Your task to perform on an android device: turn on improve location accuracy Image 0: 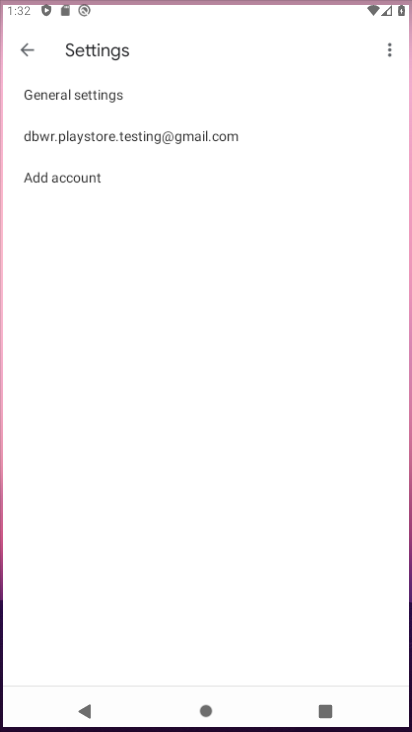
Step 0: drag from (255, 623) to (200, 123)
Your task to perform on an android device: turn on improve location accuracy Image 1: 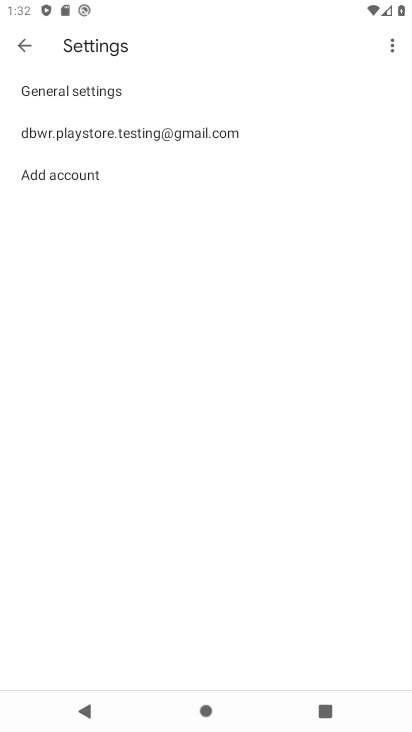
Step 1: press home button
Your task to perform on an android device: turn on improve location accuracy Image 2: 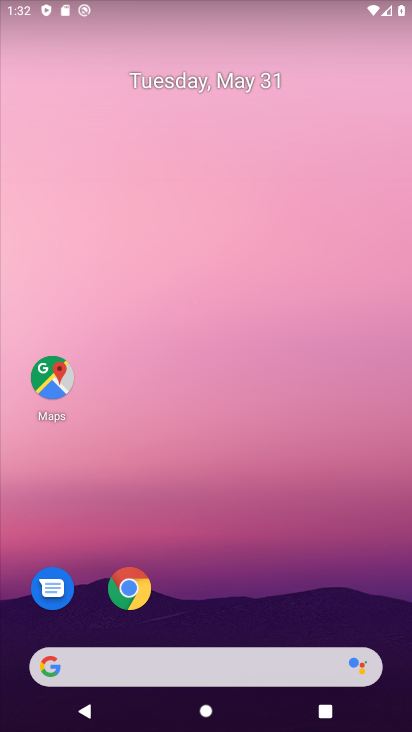
Step 2: drag from (239, 624) to (238, 46)
Your task to perform on an android device: turn on improve location accuracy Image 3: 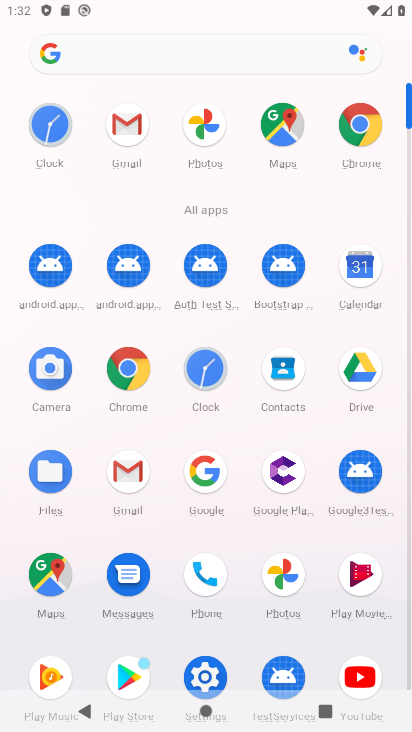
Step 3: click (219, 672)
Your task to perform on an android device: turn on improve location accuracy Image 4: 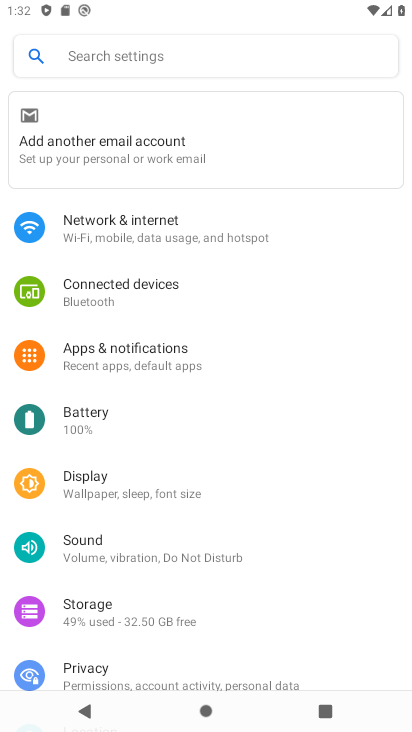
Step 4: drag from (178, 654) to (185, 143)
Your task to perform on an android device: turn on improve location accuracy Image 5: 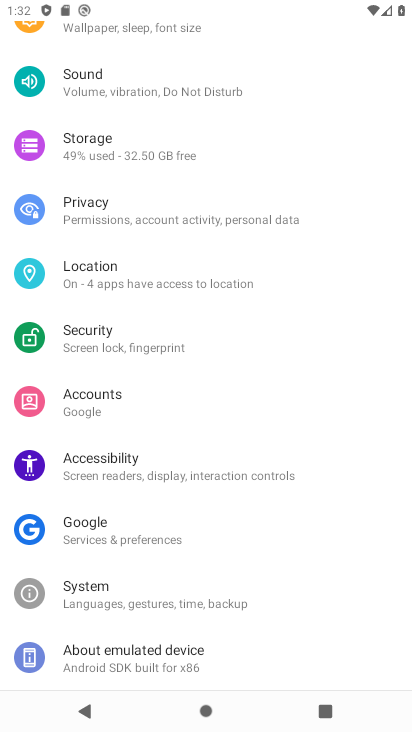
Step 5: click (141, 290)
Your task to perform on an android device: turn on improve location accuracy Image 6: 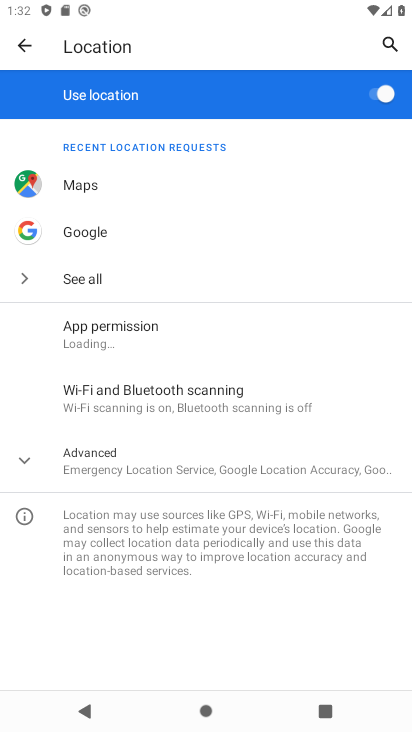
Step 6: click (220, 466)
Your task to perform on an android device: turn on improve location accuracy Image 7: 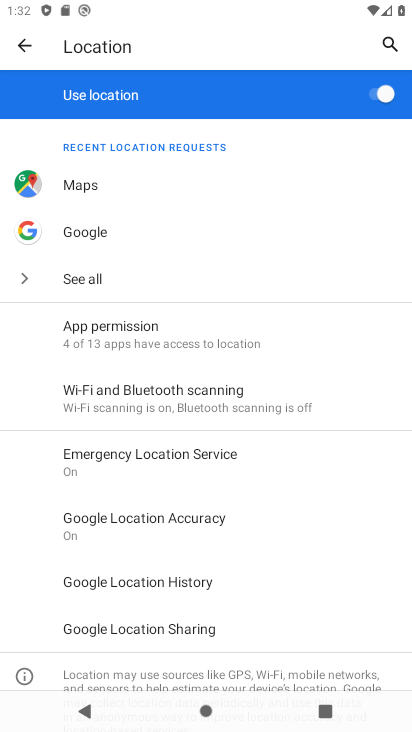
Step 7: click (243, 532)
Your task to perform on an android device: turn on improve location accuracy Image 8: 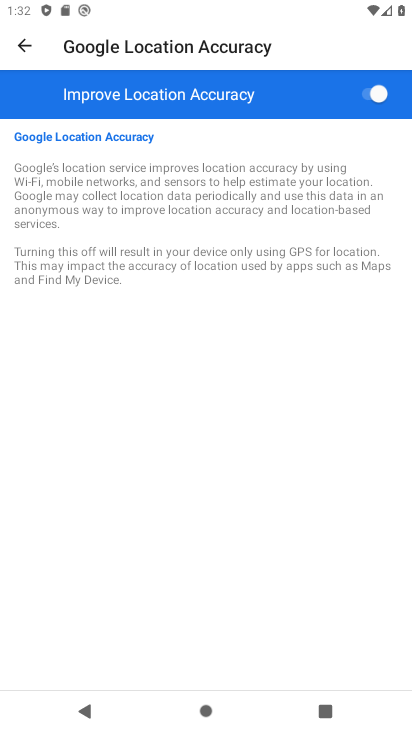
Step 8: task complete